Your task to perform on an android device: check out phone information Image 0: 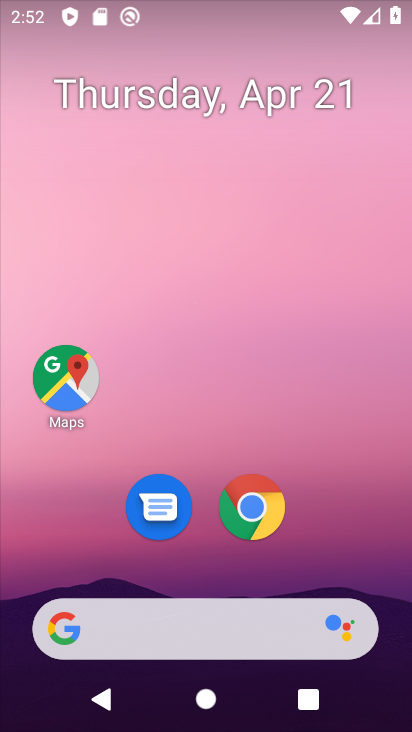
Step 0: drag from (328, 528) to (329, 130)
Your task to perform on an android device: check out phone information Image 1: 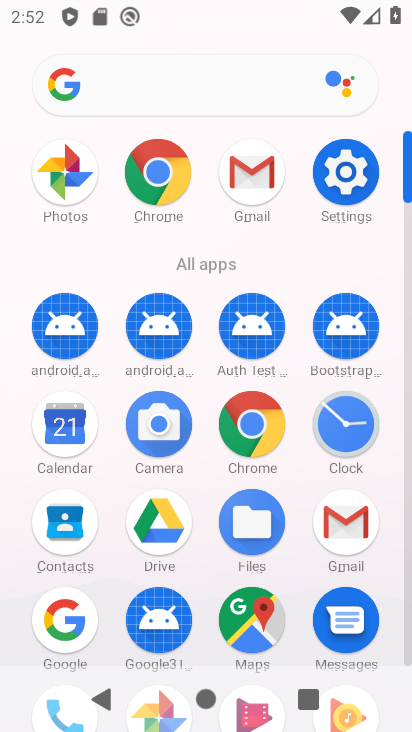
Step 1: drag from (104, 634) to (119, 335)
Your task to perform on an android device: check out phone information Image 2: 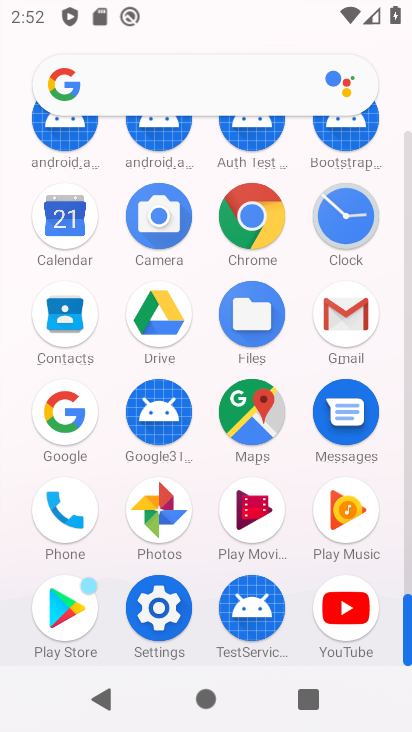
Step 2: click (76, 523)
Your task to perform on an android device: check out phone information Image 3: 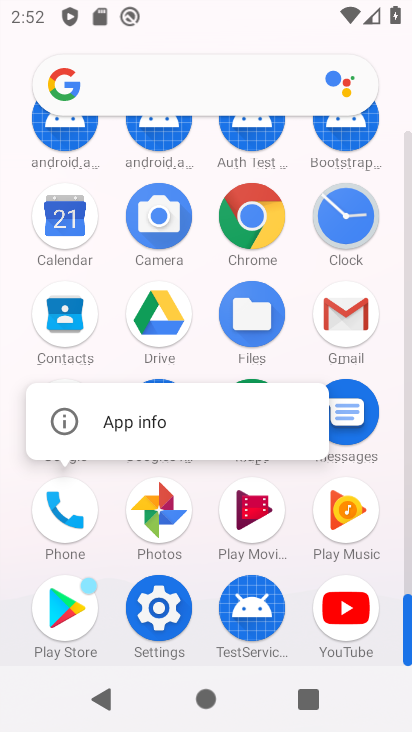
Step 3: click (67, 531)
Your task to perform on an android device: check out phone information Image 4: 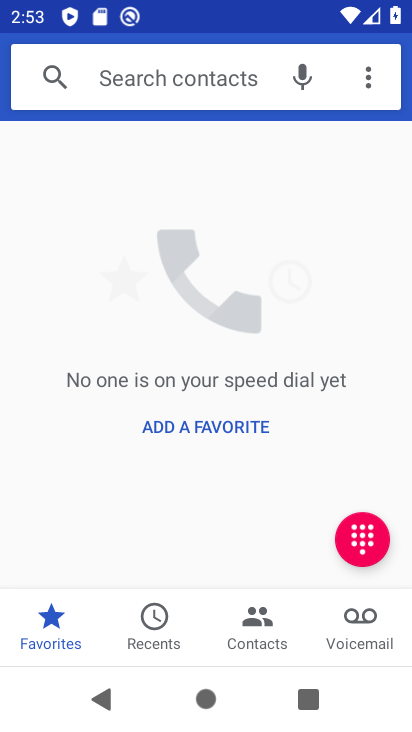
Step 4: click (370, 77)
Your task to perform on an android device: check out phone information Image 5: 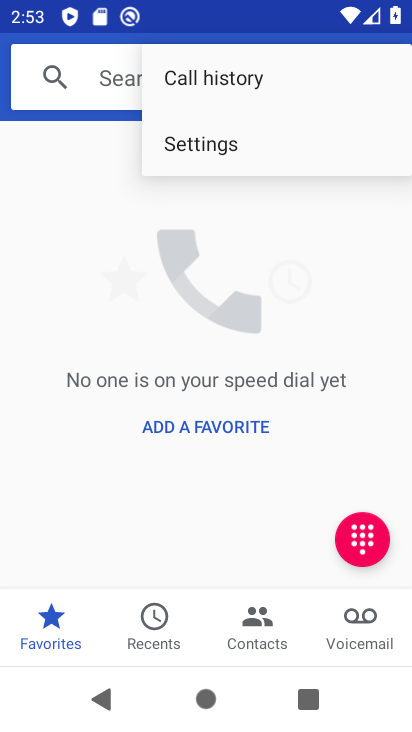
Step 5: click (256, 156)
Your task to perform on an android device: check out phone information Image 6: 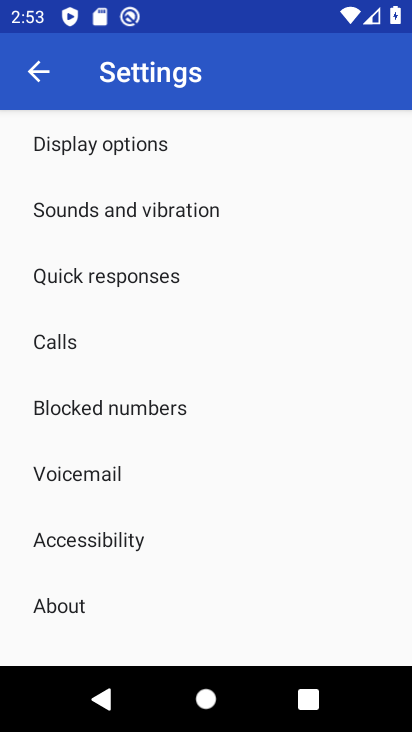
Step 6: drag from (183, 546) to (175, 170)
Your task to perform on an android device: check out phone information Image 7: 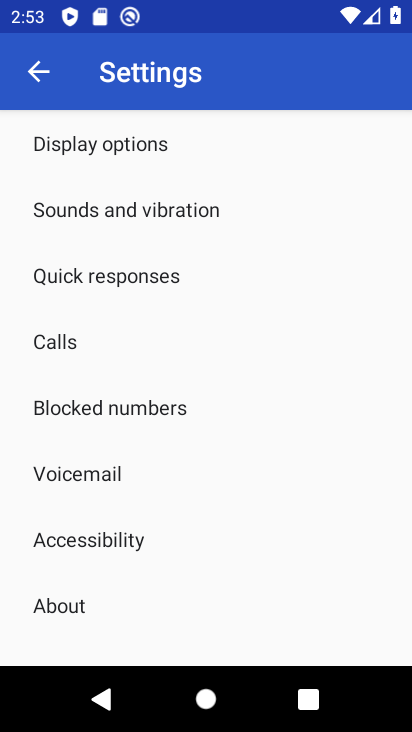
Step 7: click (106, 618)
Your task to perform on an android device: check out phone information Image 8: 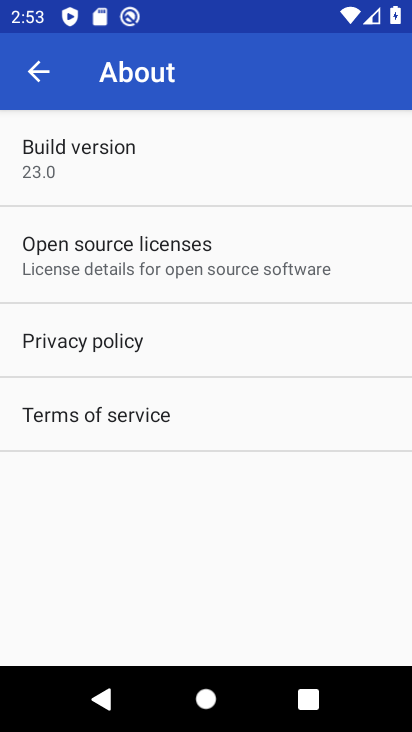
Step 8: task complete